Your task to perform on an android device: Play the last video I watched on Youtube Image 0: 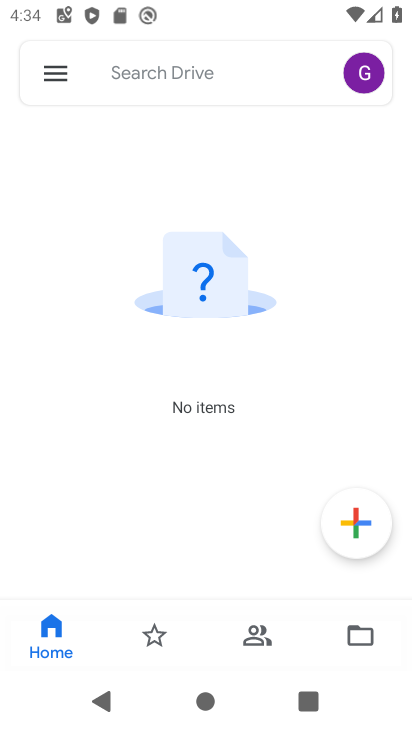
Step 0: press home button
Your task to perform on an android device: Play the last video I watched on Youtube Image 1: 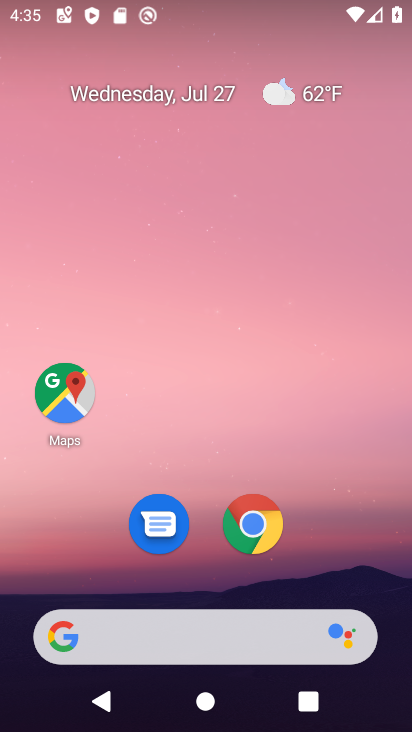
Step 1: drag from (328, 506) to (304, 22)
Your task to perform on an android device: Play the last video I watched on Youtube Image 2: 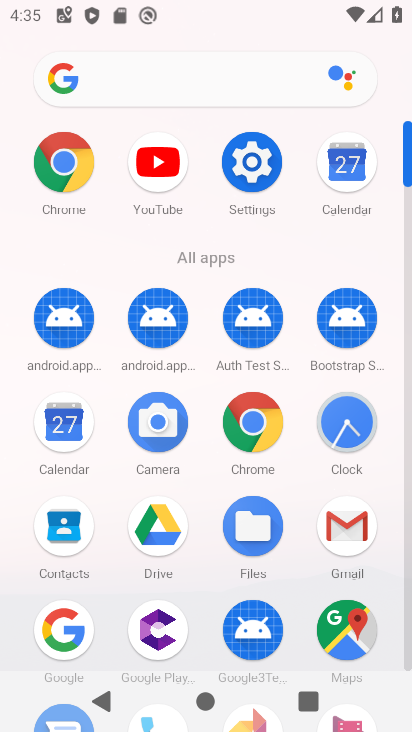
Step 2: click (168, 170)
Your task to perform on an android device: Play the last video I watched on Youtube Image 3: 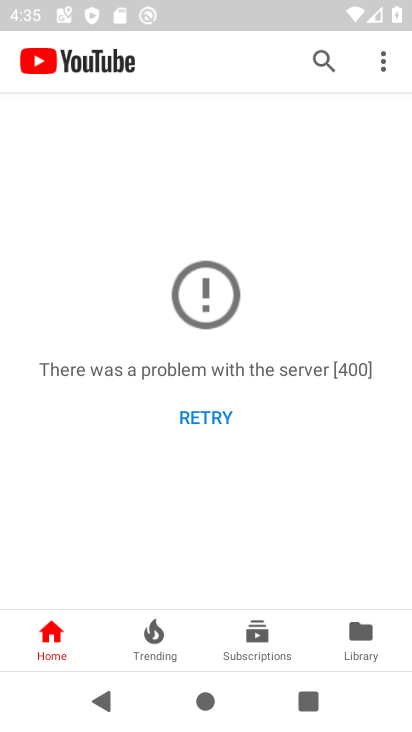
Step 3: drag from (276, 503) to (287, 123)
Your task to perform on an android device: Play the last video I watched on Youtube Image 4: 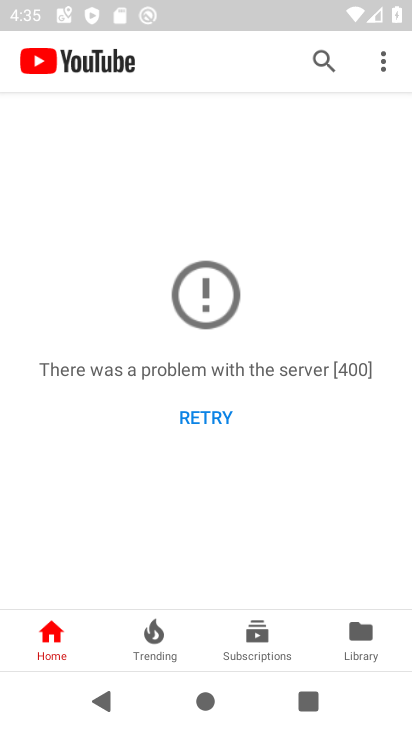
Step 4: click (363, 636)
Your task to perform on an android device: Play the last video I watched on Youtube Image 5: 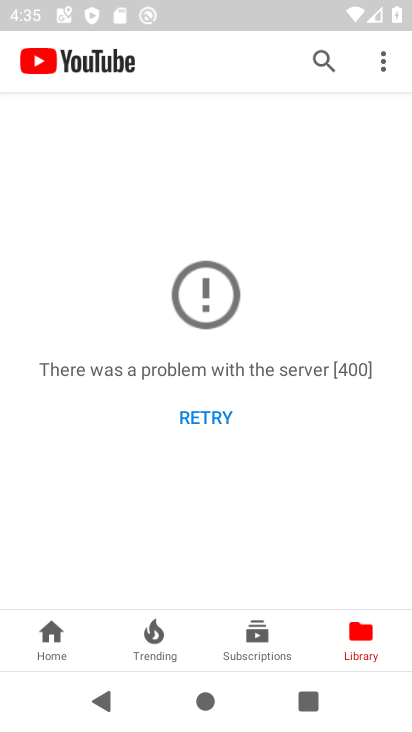
Step 5: task complete